Your task to perform on an android device: Search for "duracell triple a" on costco, select the first entry, add it to the cart, then select checkout. Image 0: 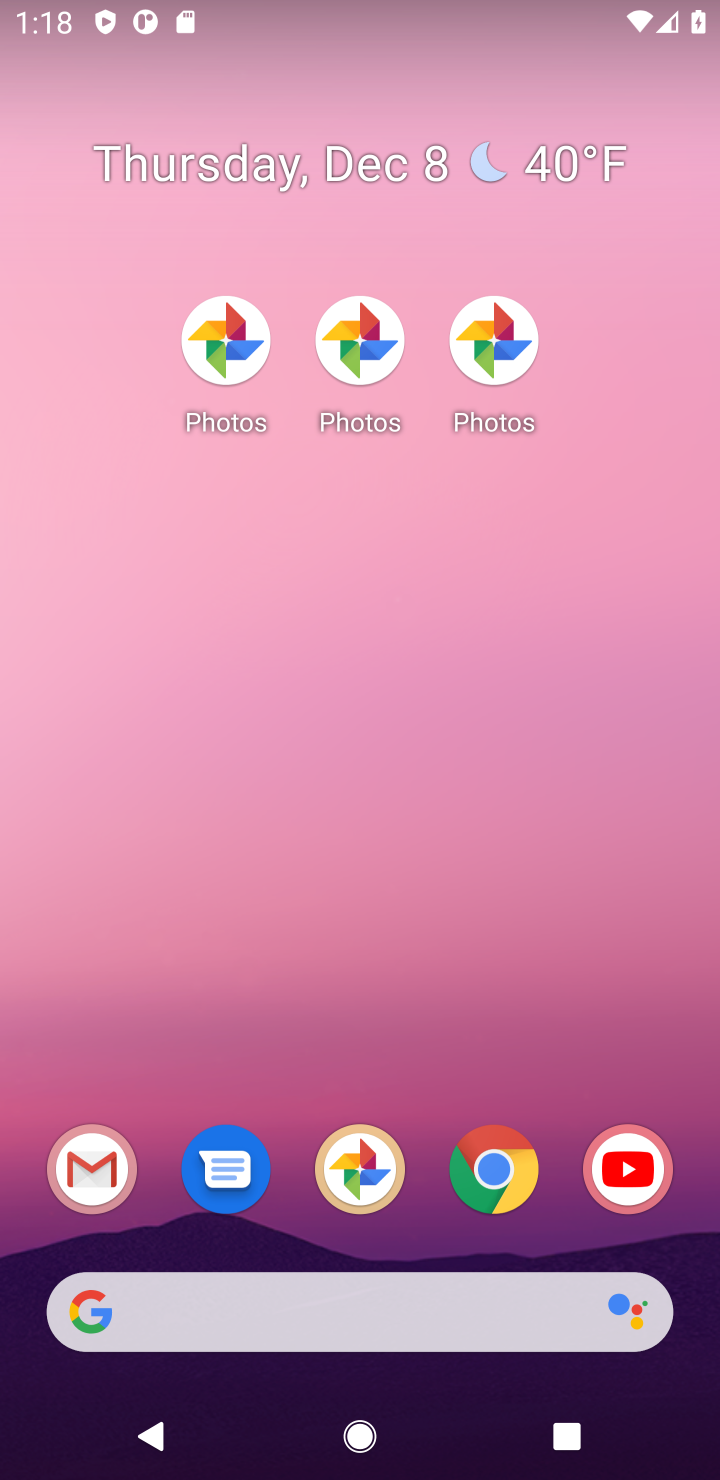
Step 0: click (296, 496)
Your task to perform on an android device: Search for "duracell triple a" on costco, select the first entry, add it to the cart, then select checkout. Image 1: 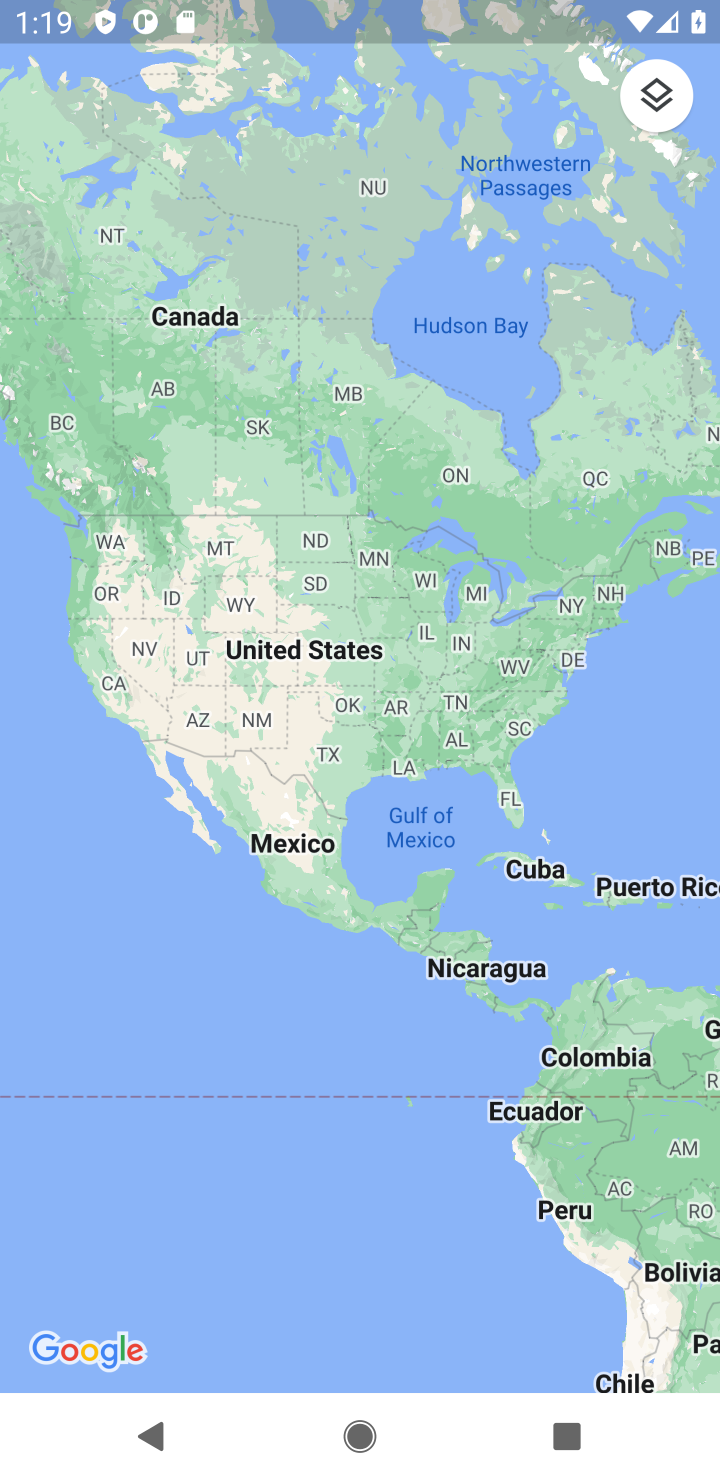
Step 1: press home button
Your task to perform on an android device: Search for "duracell triple a" on costco, select the first entry, add it to the cart, then select checkout. Image 2: 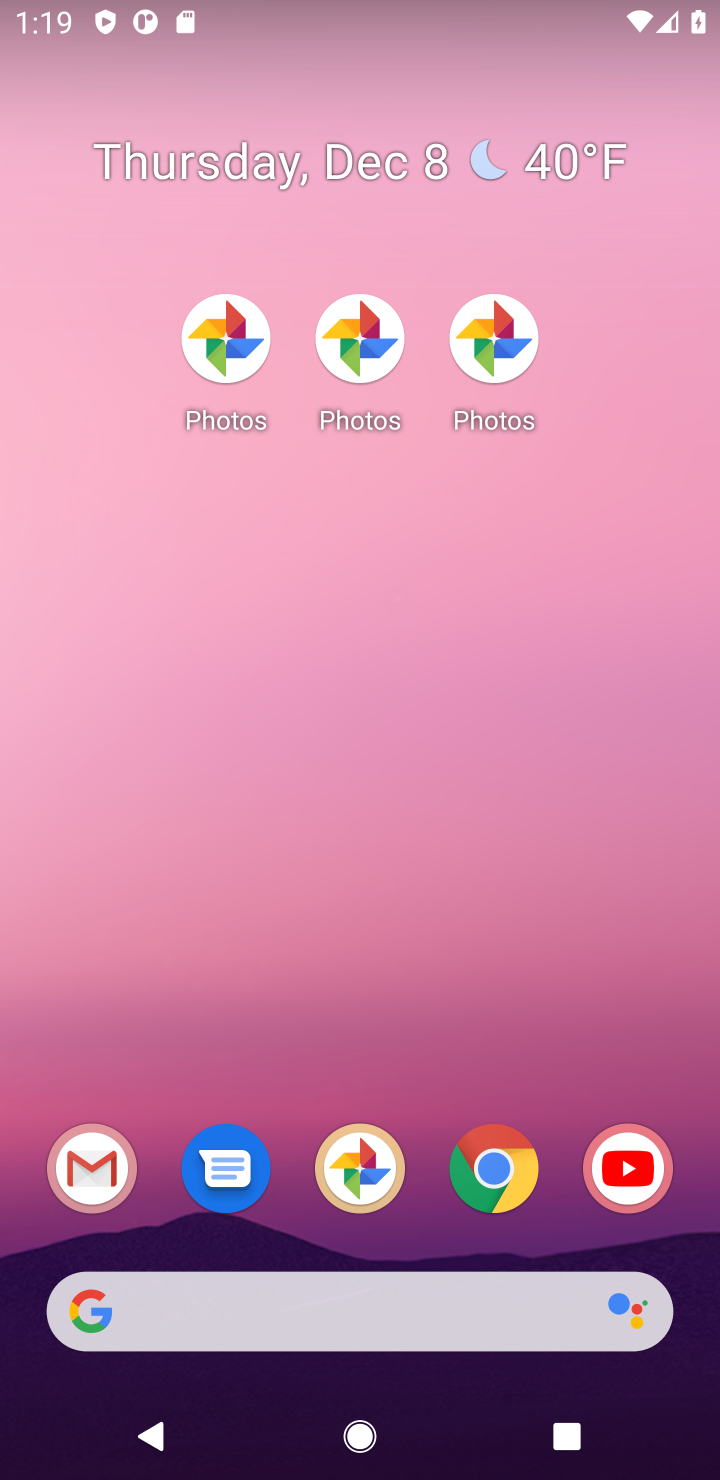
Step 2: drag from (336, 915) to (352, 341)
Your task to perform on an android device: Search for "duracell triple a" on costco, select the first entry, add it to the cart, then select checkout. Image 3: 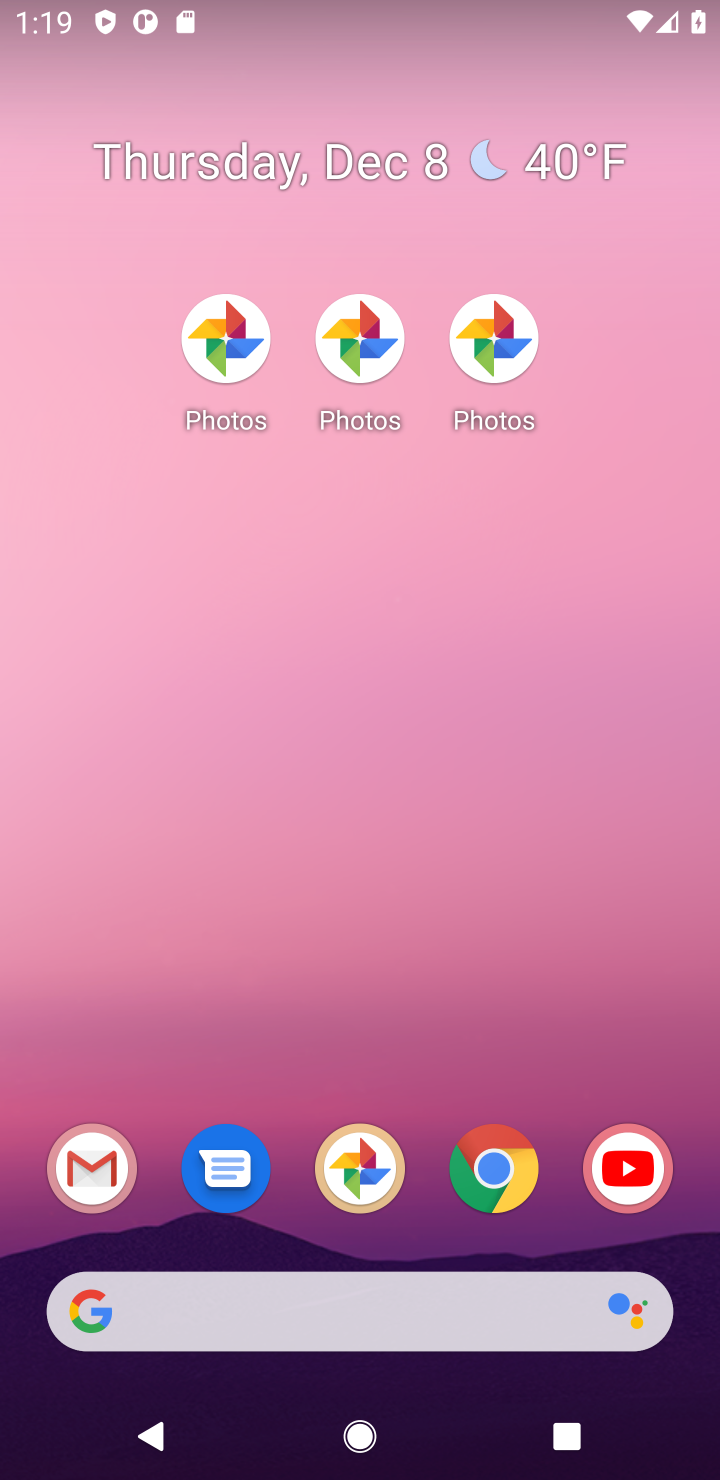
Step 3: drag from (349, 1057) to (351, 266)
Your task to perform on an android device: Search for "duracell triple a" on costco, select the first entry, add it to the cart, then select checkout. Image 4: 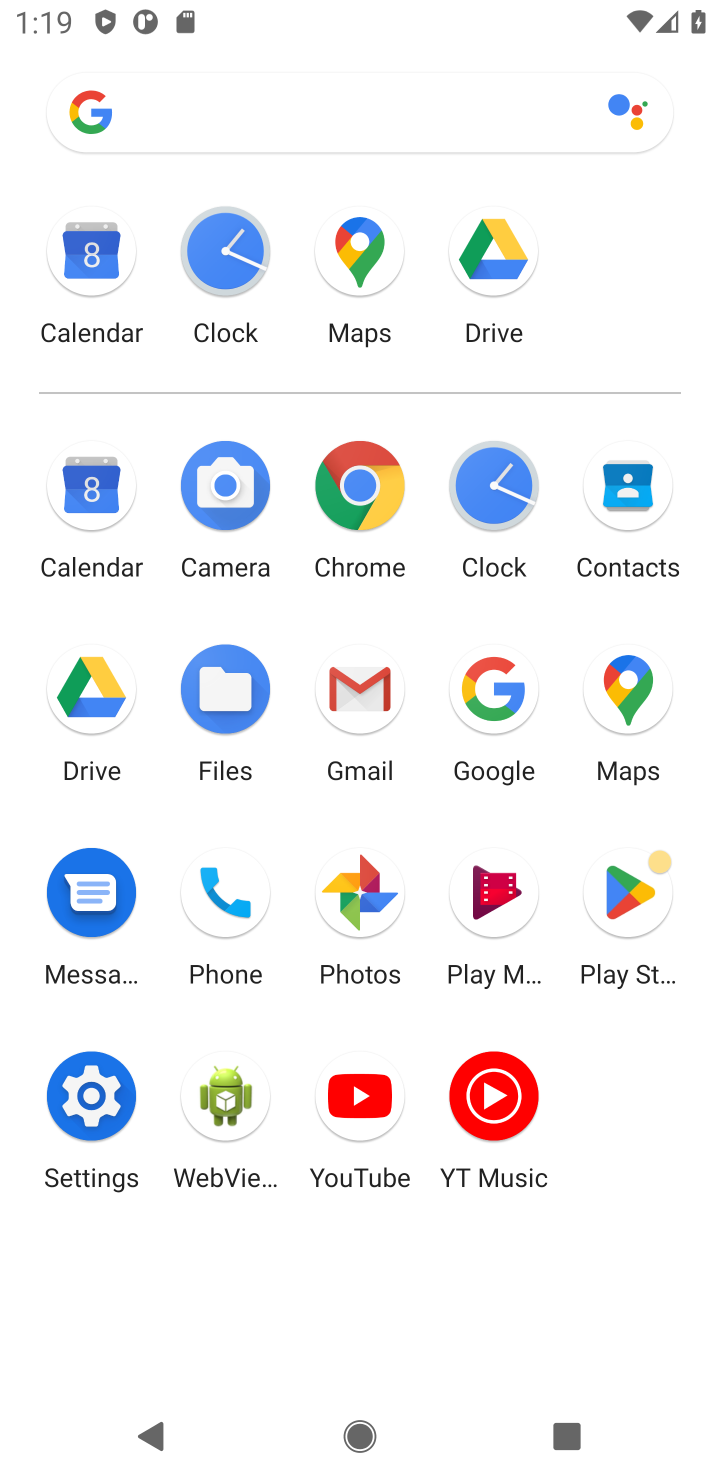
Step 4: click (476, 712)
Your task to perform on an android device: Search for "duracell triple a" on costco, select the first entry, add it to the cart, then select checkout. Image 5: 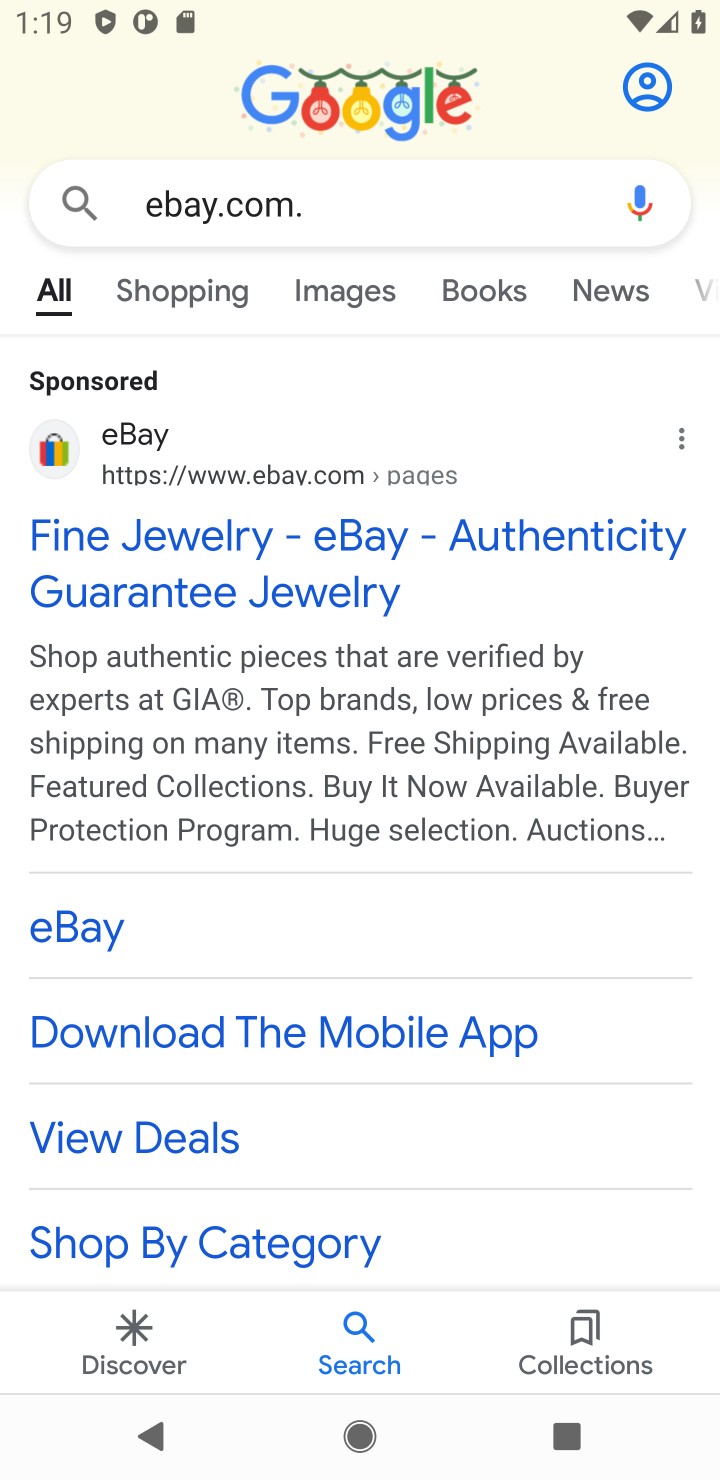
Step 5: click (175, 203)
Your task to perform on an android device: Search for "duracell triple a" on costco, select the first entry, add it to the cart, then select checkout. Image 6: 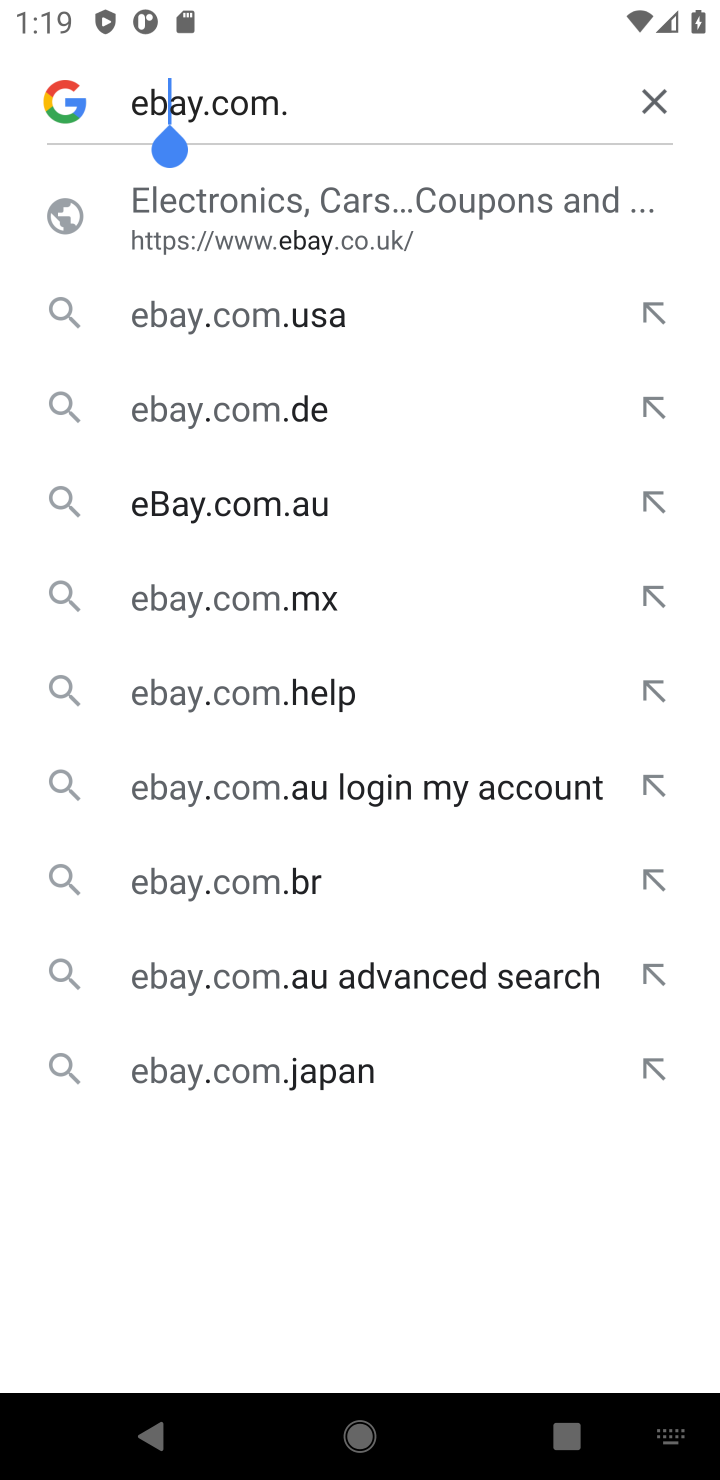
Step 6: click (657, 100)
Your task to perform on an android device: Search for "duracell triple a" on costco, select the first entry, add it to the cart, then select checkout. Image 7: 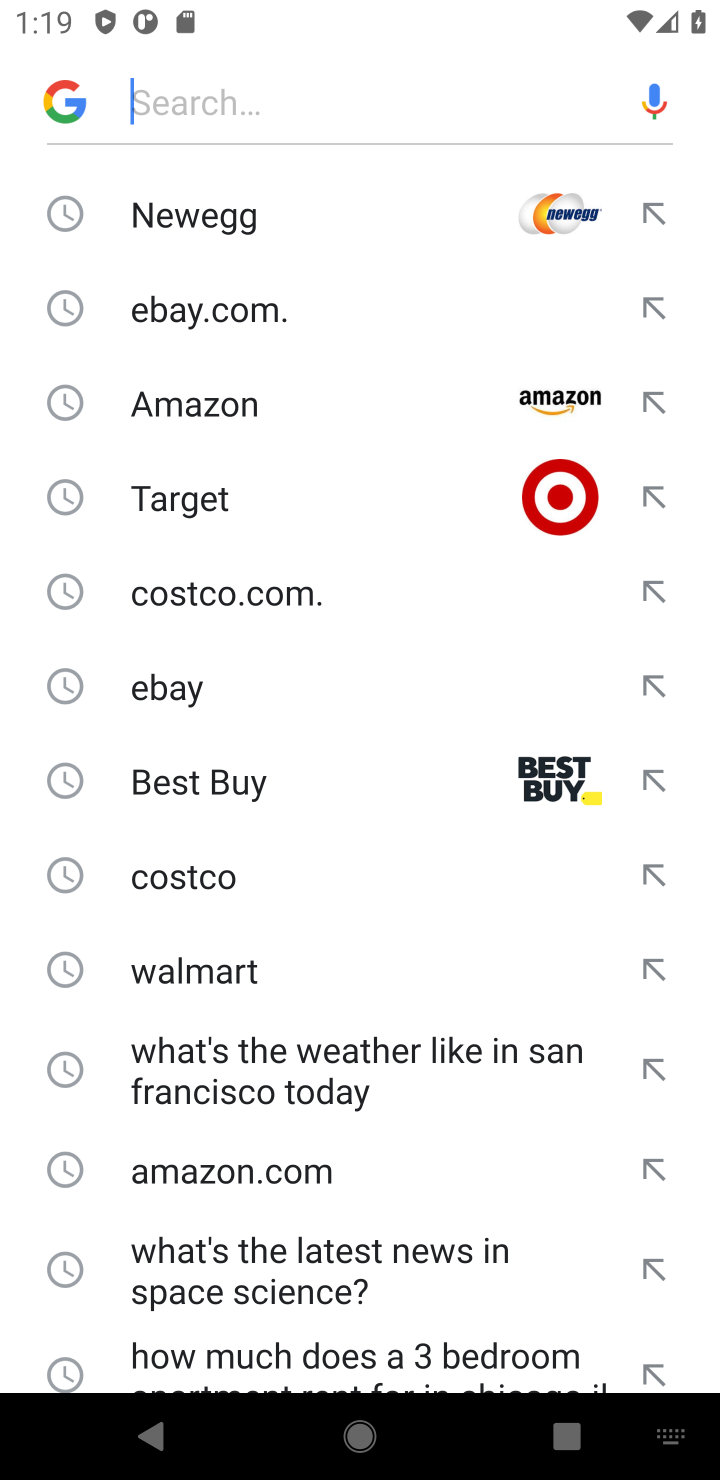
Step 7: click (216, 600)
Your task to perform on an android device: Search for "duracell triple a" on costco, select the first entry, add it to the cart, then select checkout. Image 8: 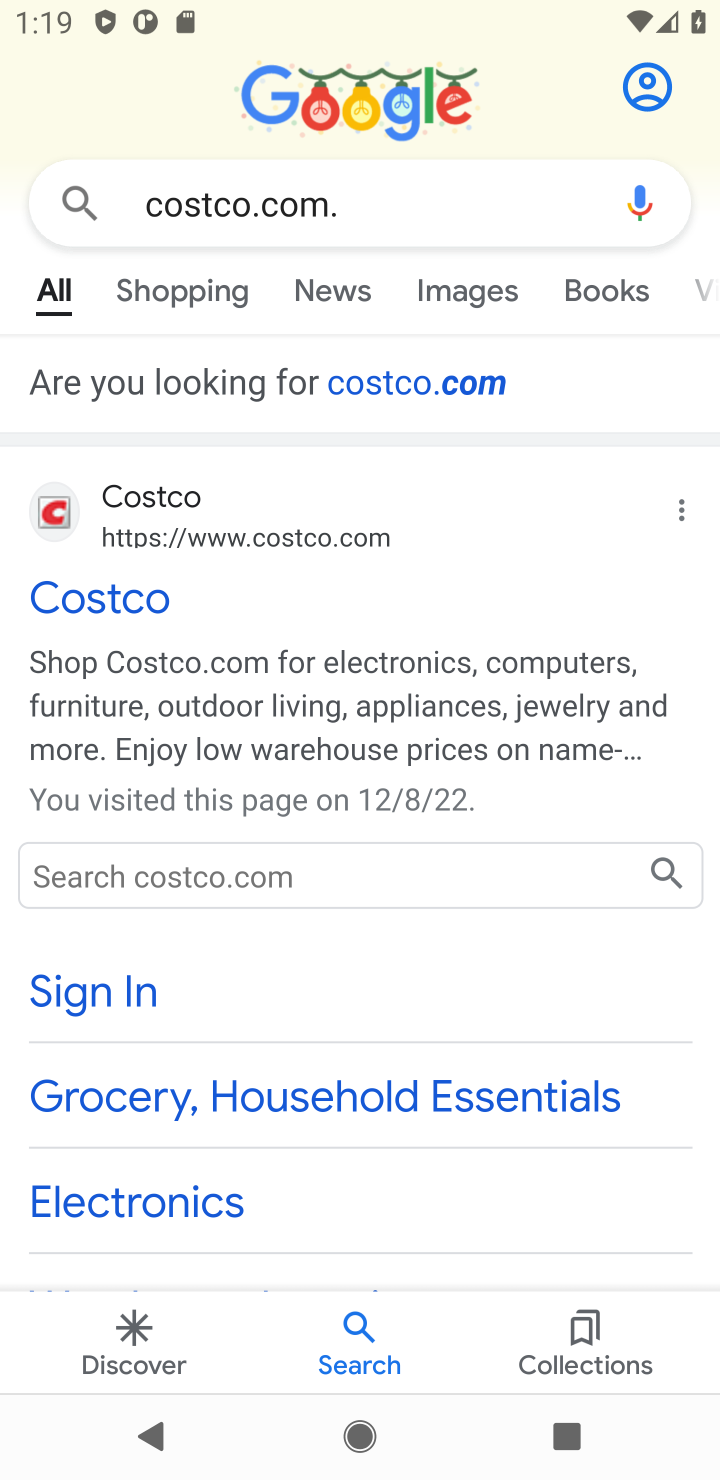
Step 8: click (107, 597)
Your task to perform on an android device: Search for "duracell triple a" on costco, select the first entry, add it to the cart, then select checkout. Image 9: 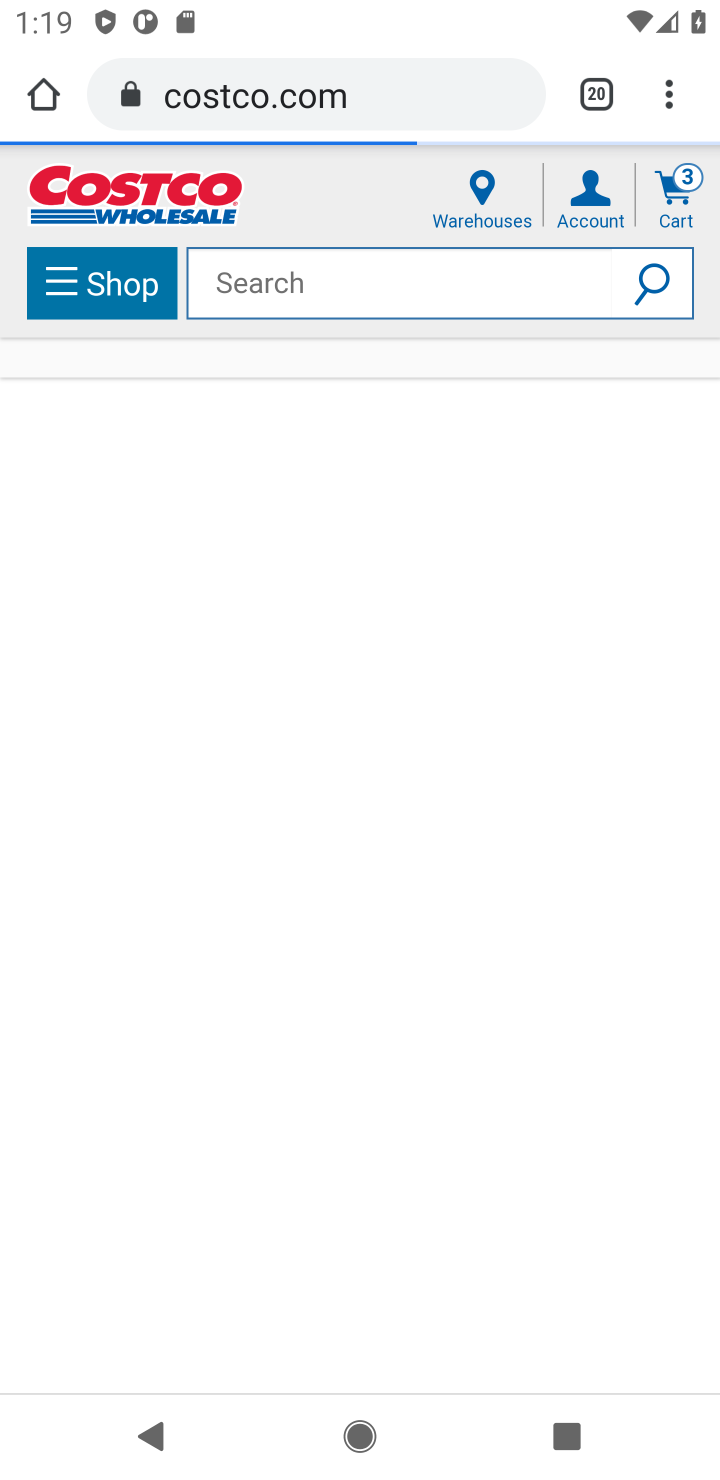
Step 9: click (316, 288)
Your task to perform on an android device: Search for "duracell triple a" on costco, select the first entry, add it to the cart, then select checkout. Image 10: 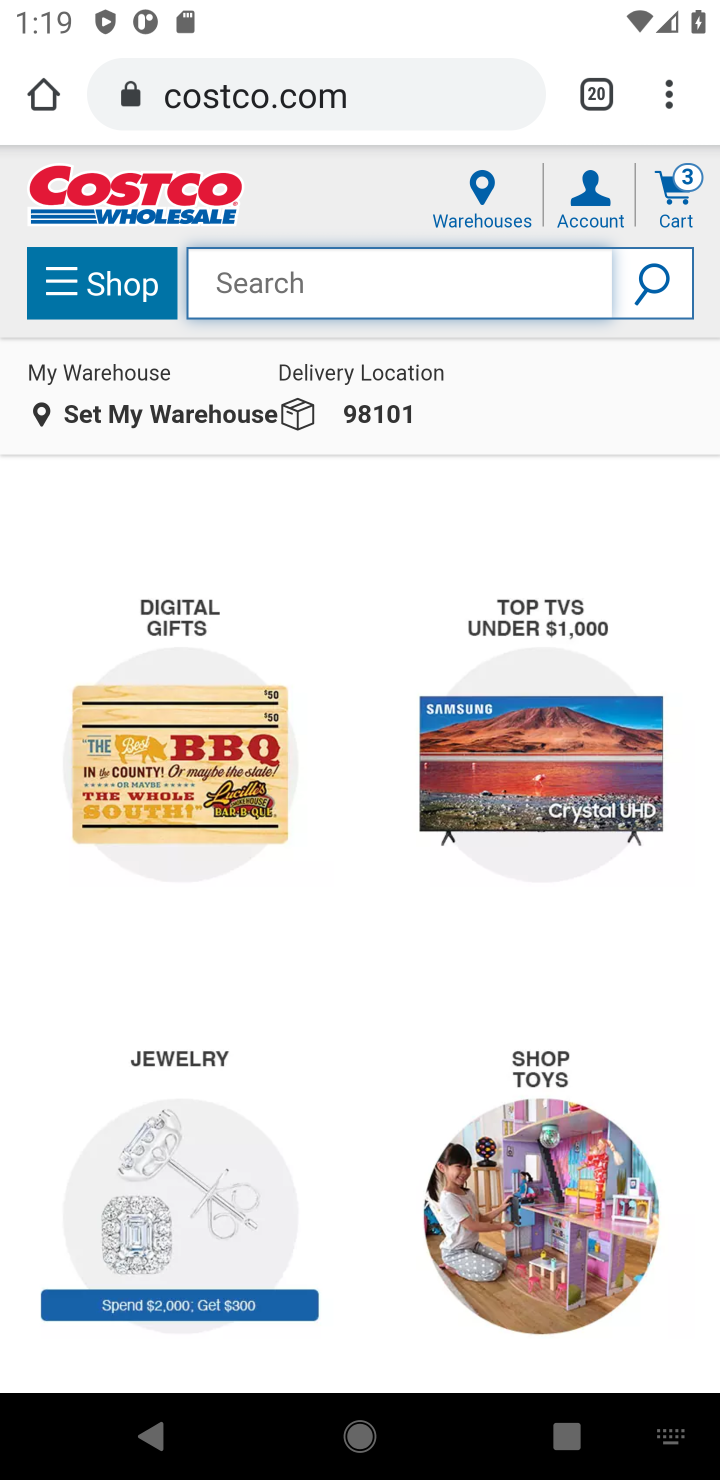
Step 10: type "duracell triple a"
Your task to perform on an android device: Search for "duracell triple a" on costco, select the first entry, add it to the cart, then select checkout. Image 11: 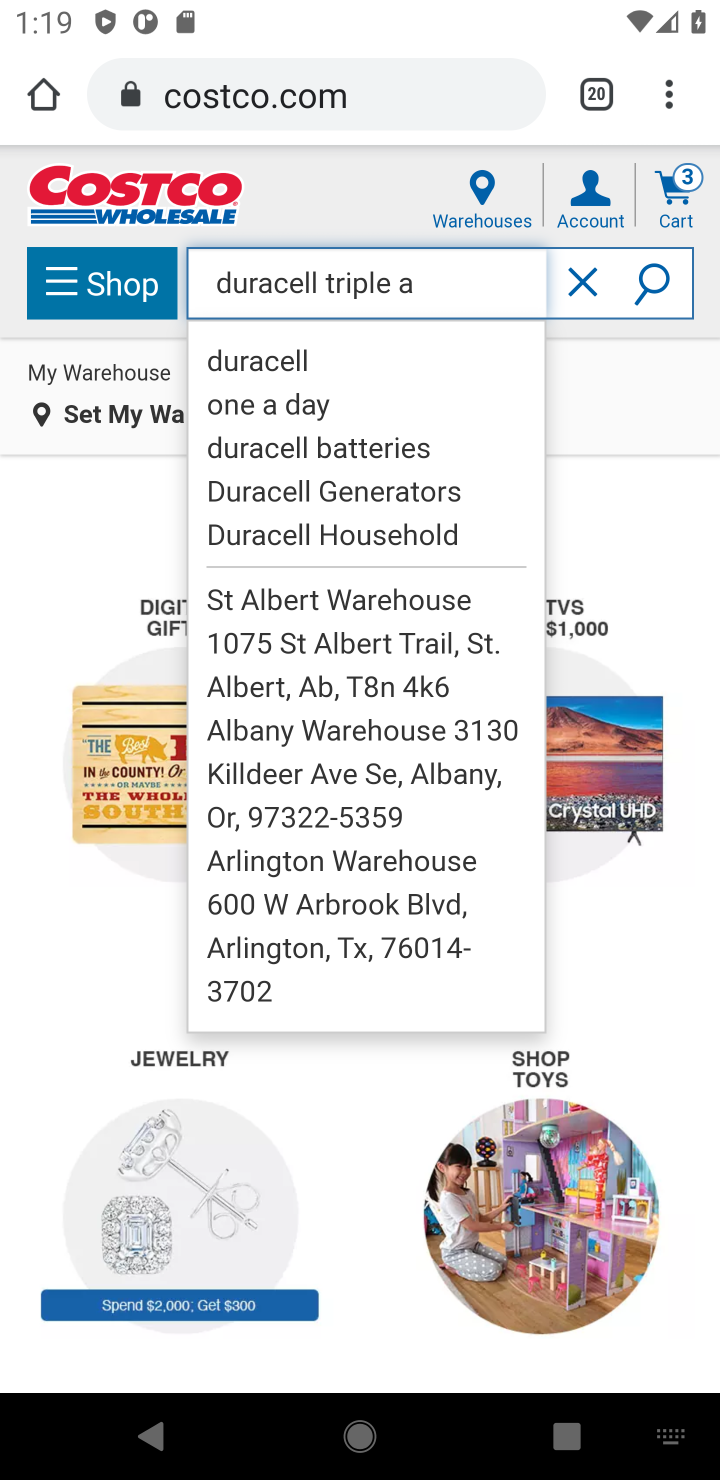
Step 11: click (286, 347)
Your task to perform on an android device: Search for "duracell triple a" on costco, select the first entry, add it to the cart, then select checkout. Image 12: 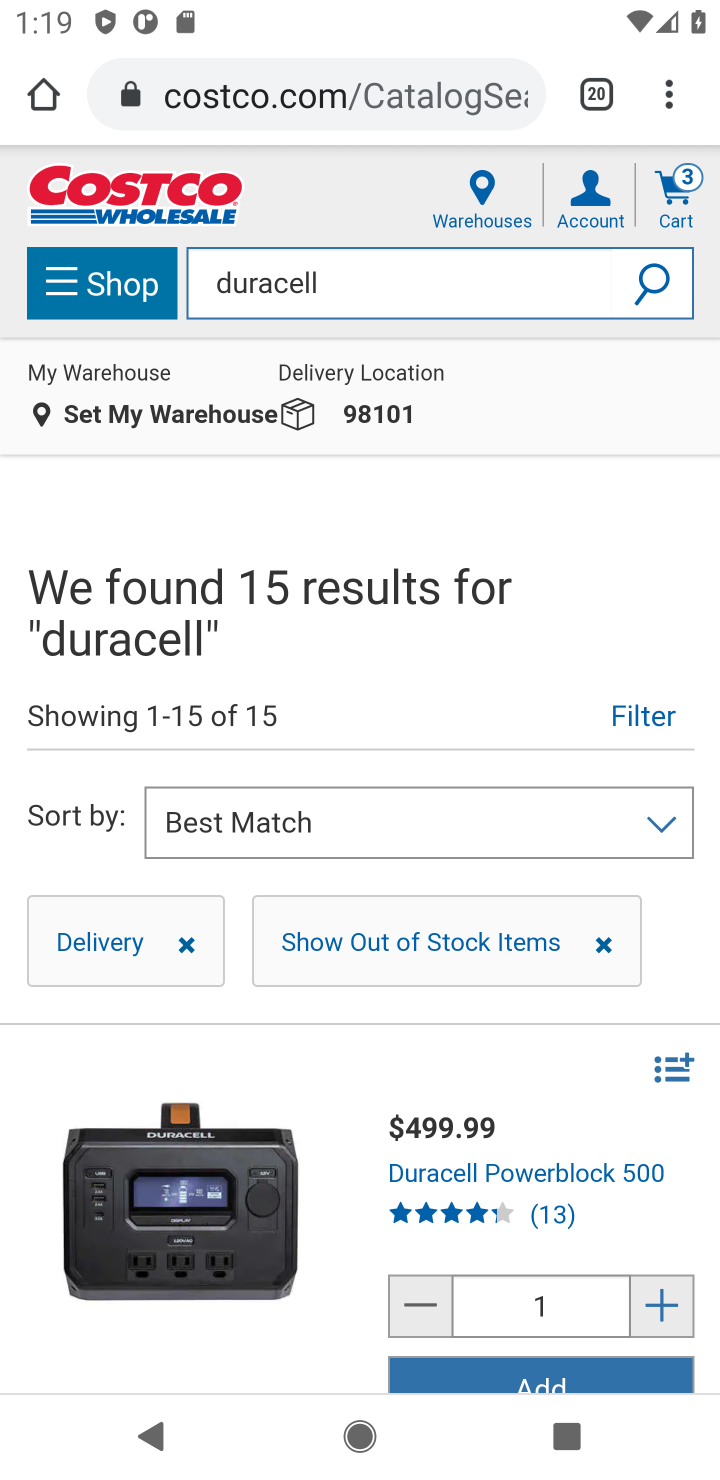
Step 12: drag from (293, 1310) to (291, 678)
Your task to perform on an android device: Search for "duracell triple a" on costco, select the first entry, add it to the cart, then select checkout. Image 13: 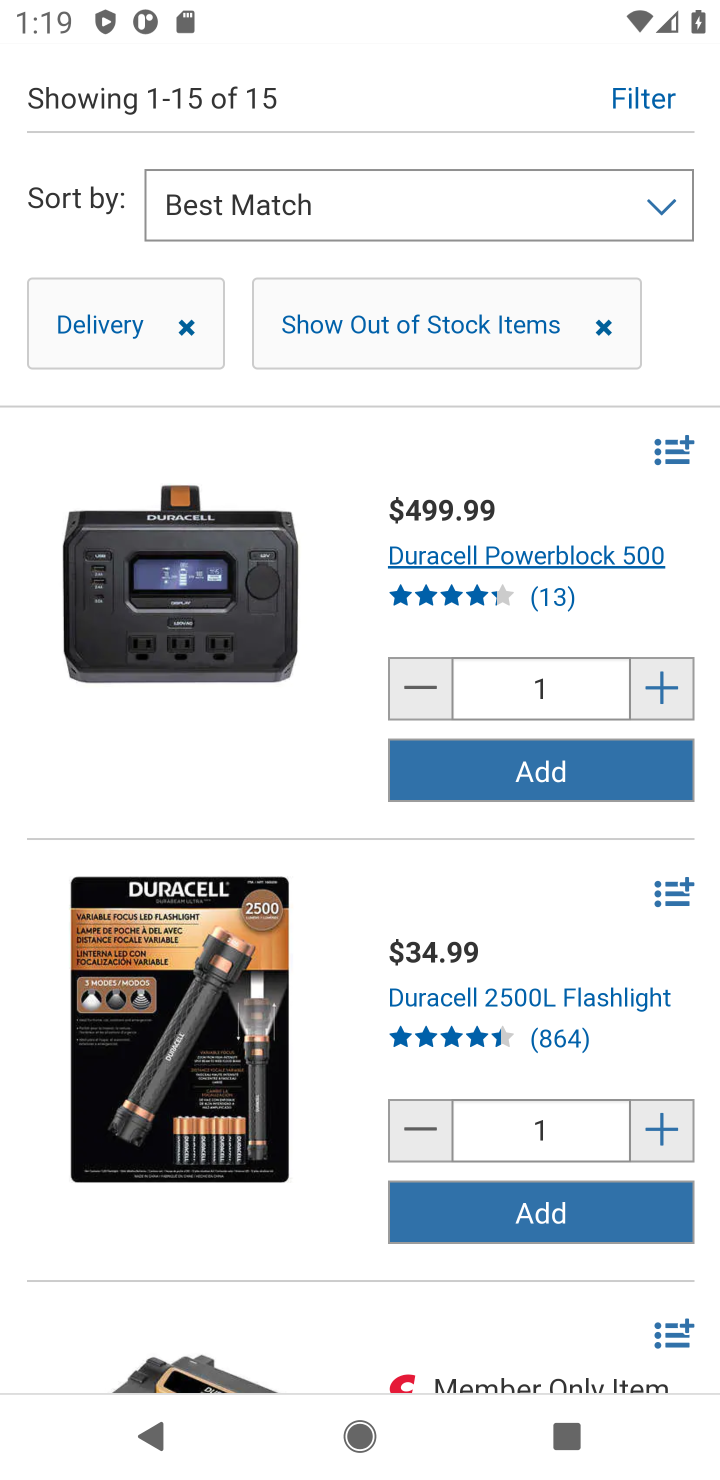
Step 13: click (500, 766)
Your task to perform on an android device: Search for "duracell triple a" on costco, select the first entry, add it to the cart, then select checkout. Image 14: 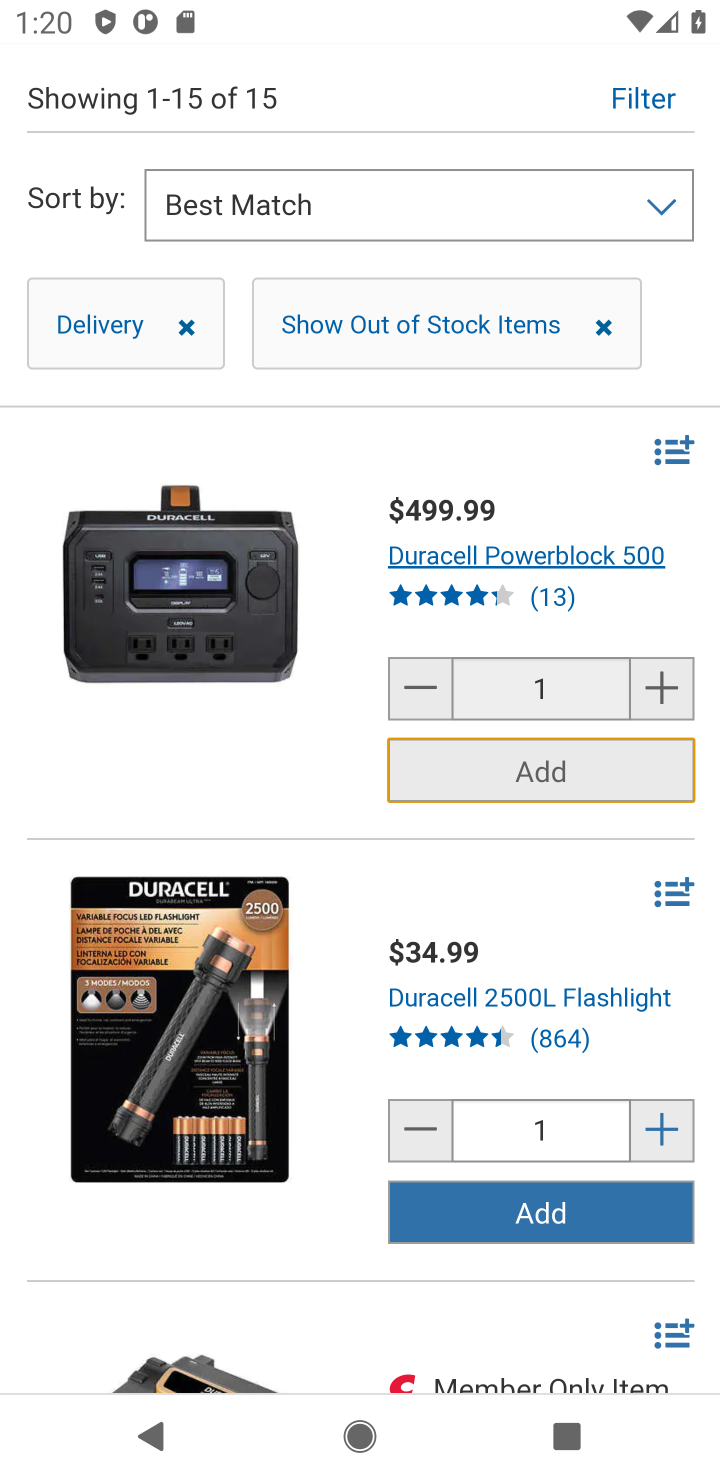
Step 14: drag from (324, 429) to (357, 1058)
Your task to perform on an android device: Search for "duracell triple a" on costco, select the first entry, add it to the cart, then select checkout. Image 15: 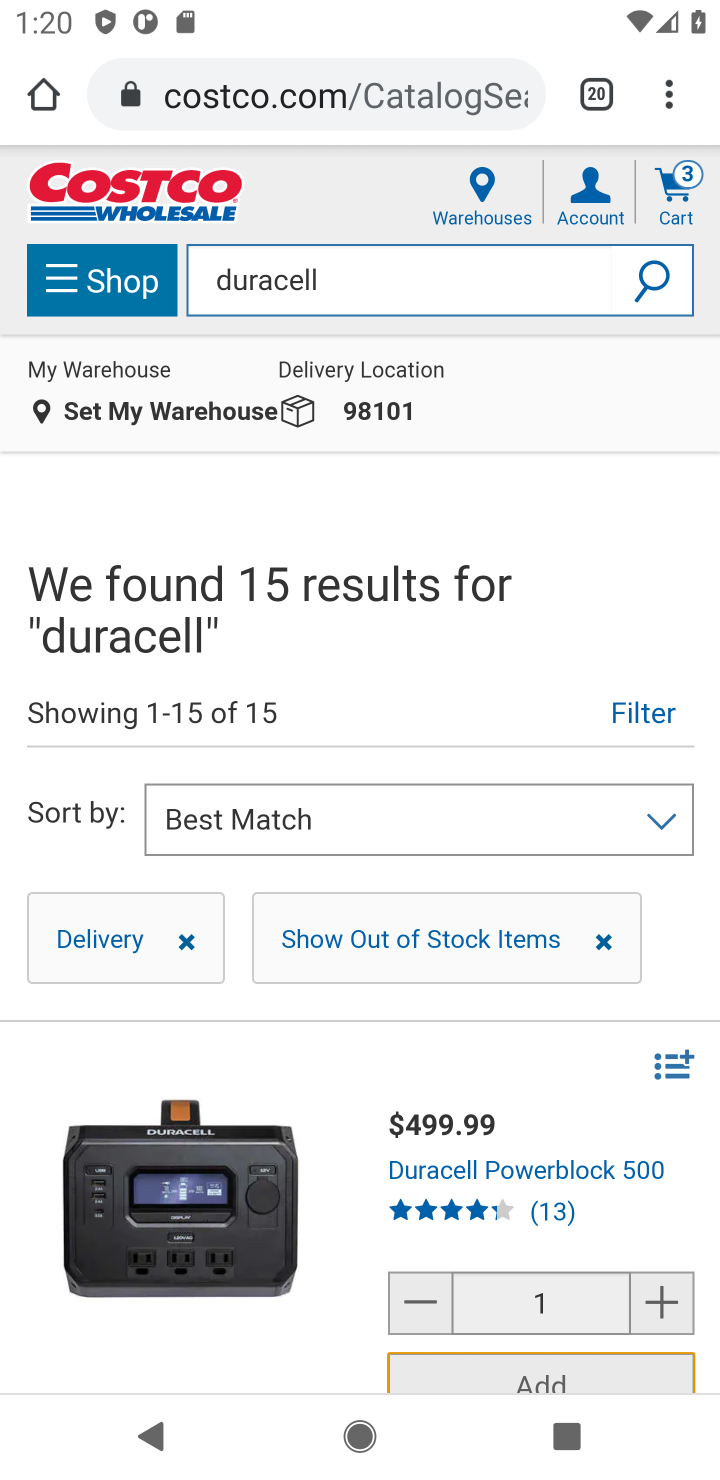
Step 15: click (666, 186)
Your task to perform on an android device: Search for "duracell triple a" on costco, select the first entry, add it to the cart, then select checkout. Image 16: 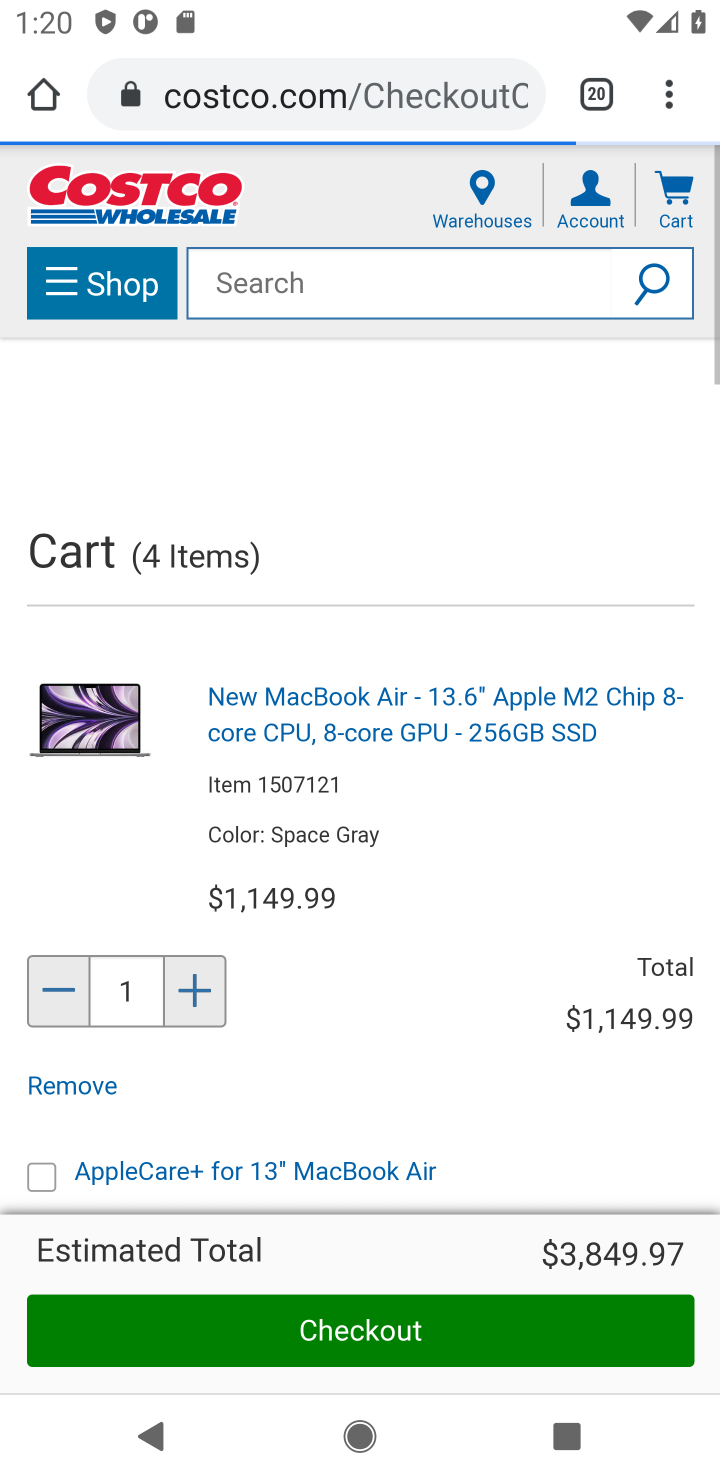
Step 16: click (672, 179)
Your task to perform on an android device: Search for "duracell triple a" on costco, select the first entry, add it to the cart, then select checkout. Image 17: 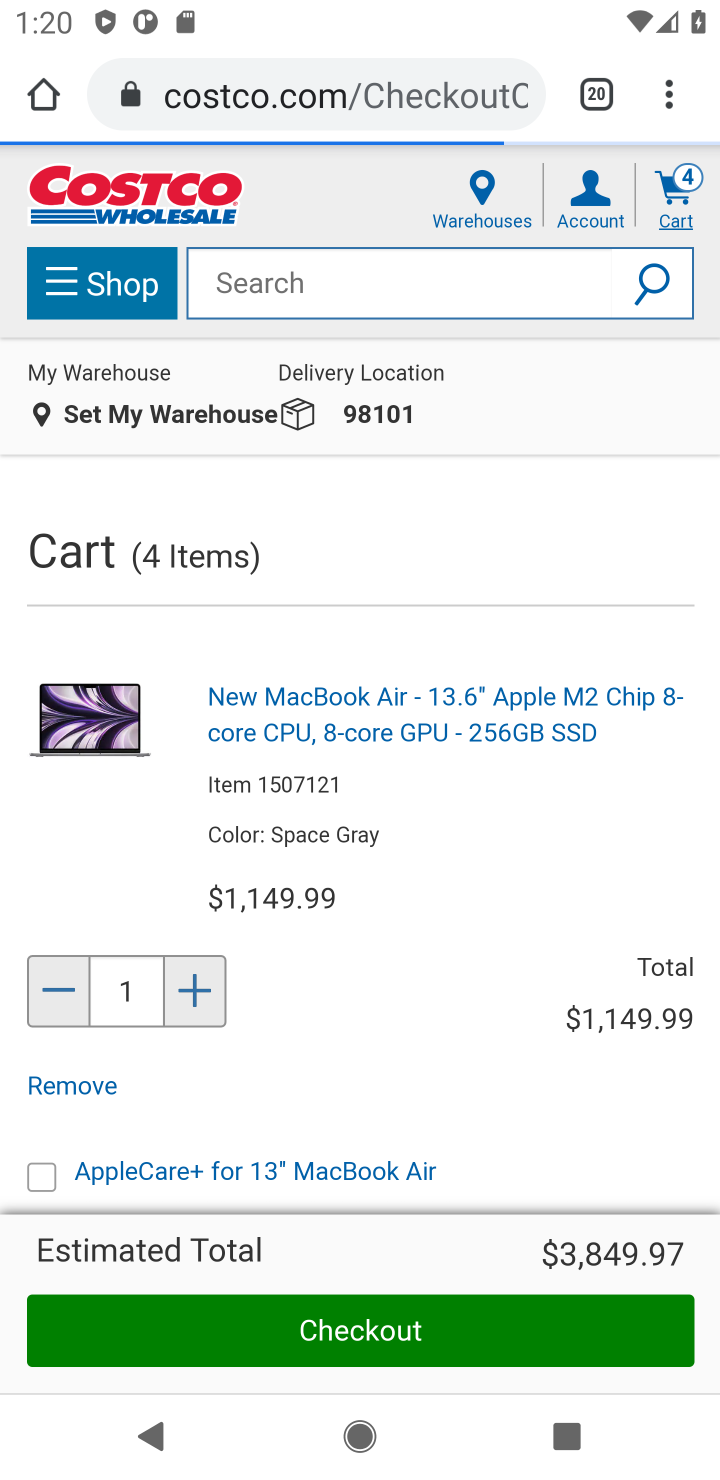
Step 17: click (371, 1336)
Your task to perform on an android device: Search for "duracell triple a" on costco, select the first entry, add it to the cart, then select checkout. Image 18: 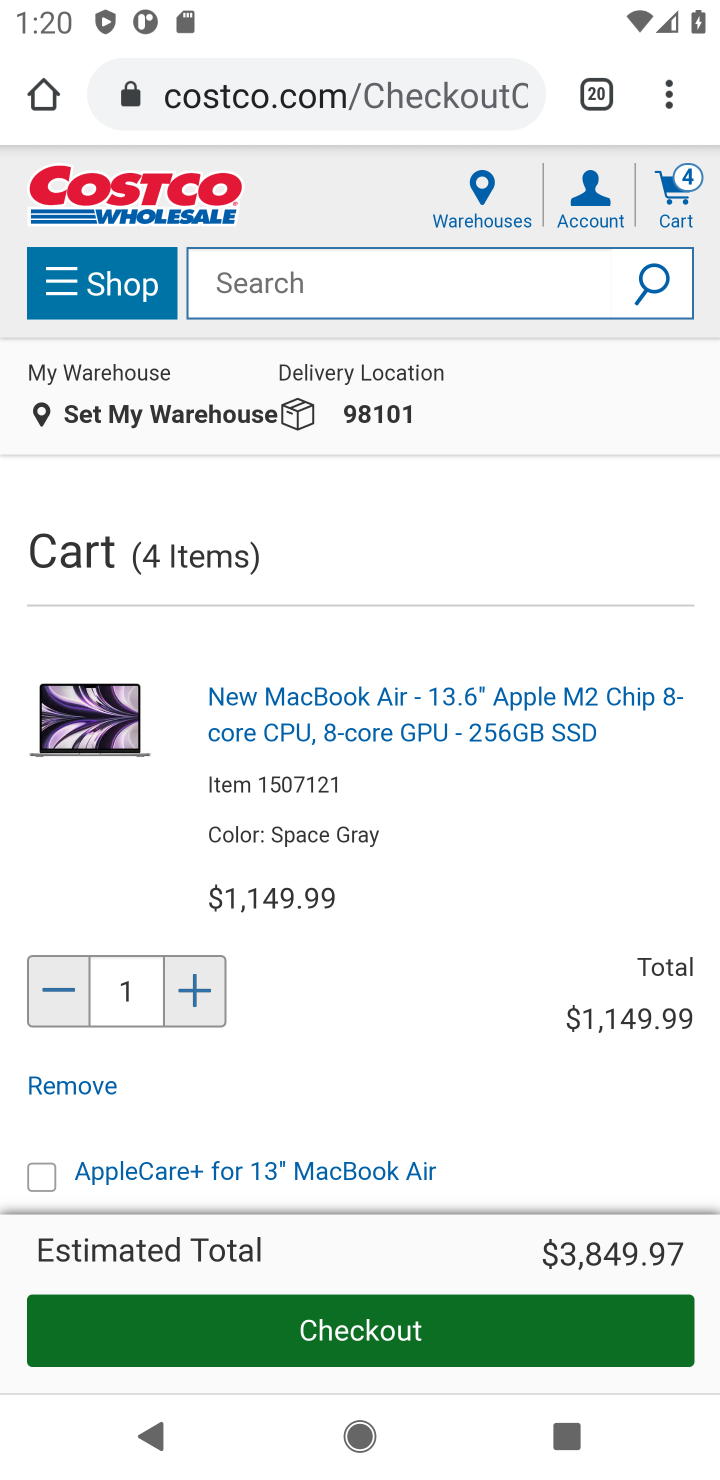
Step 18: task complete